Your task to perform on an android device: Search for vegetarian restaurants on Maps Image 0: 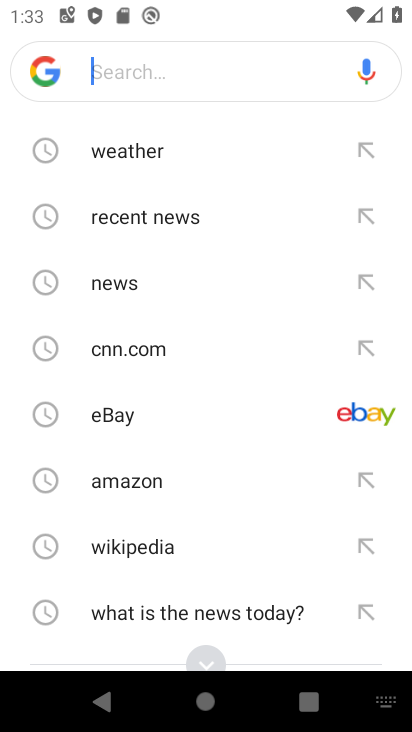
Step 0: press home button
Your task to perform on an android device: Search for vegetarian restaurants on Maps Image 1: 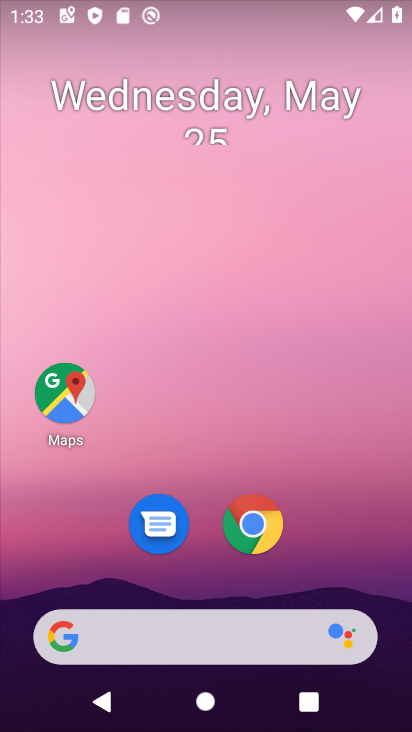
Step 1: click (56, 387)
Your task to perform on an android device: Search for vegetarian restaurants on Maps Image 2: 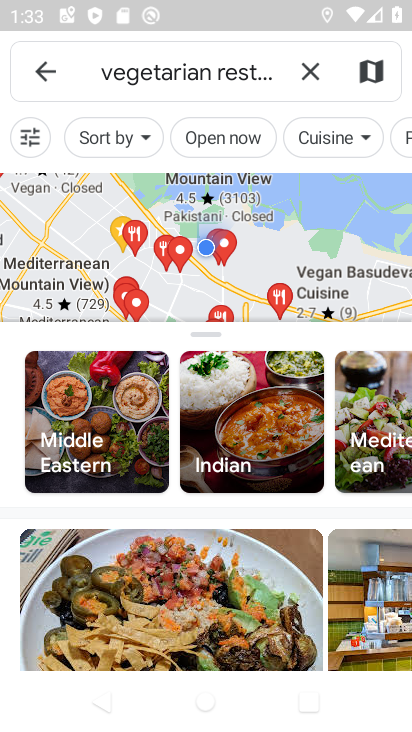
Step 2: task complete